Your task to perform on an android device: open app "Messenger Lite" (install if not already installed) Image 0: 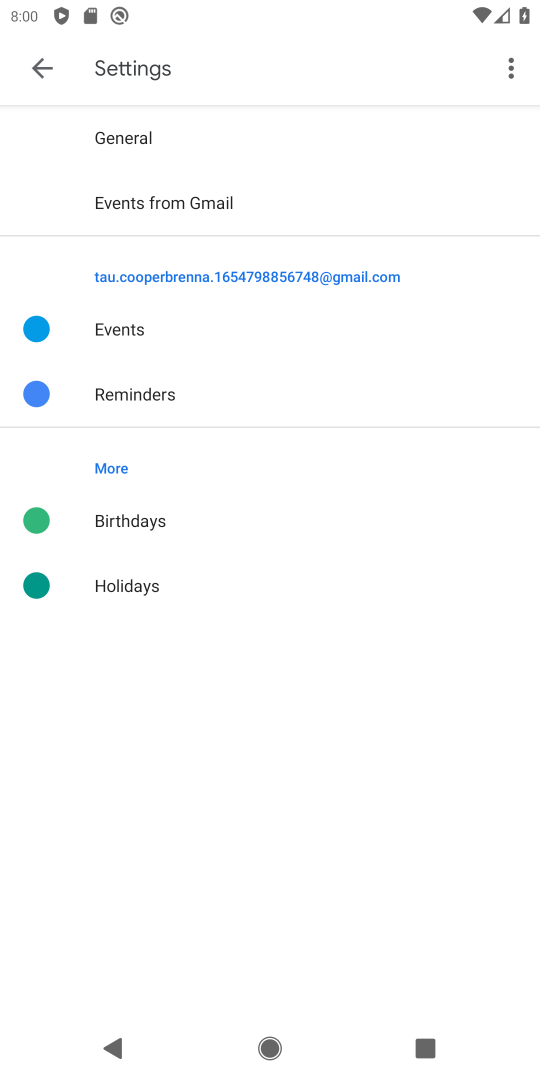
Step 0: press home button
Your task to perform on an android device: open app "Messenger Lite" (install if not already installed) Image 1: 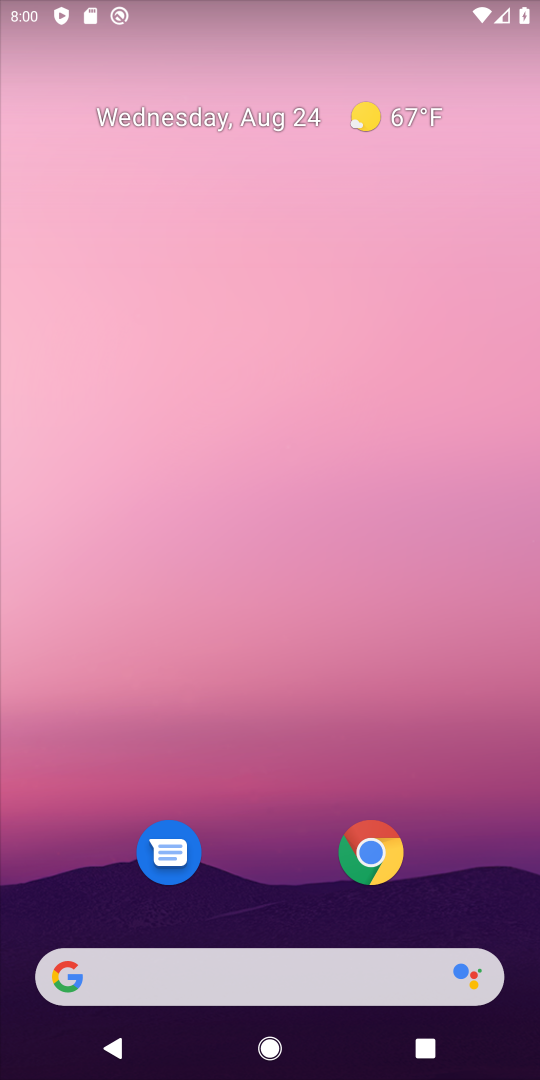
Step 1: drag from (190, 980) to (253, 42)
Your task to perform on an android device: open app "Messenger Lite" (install if not already installed) Image 2: 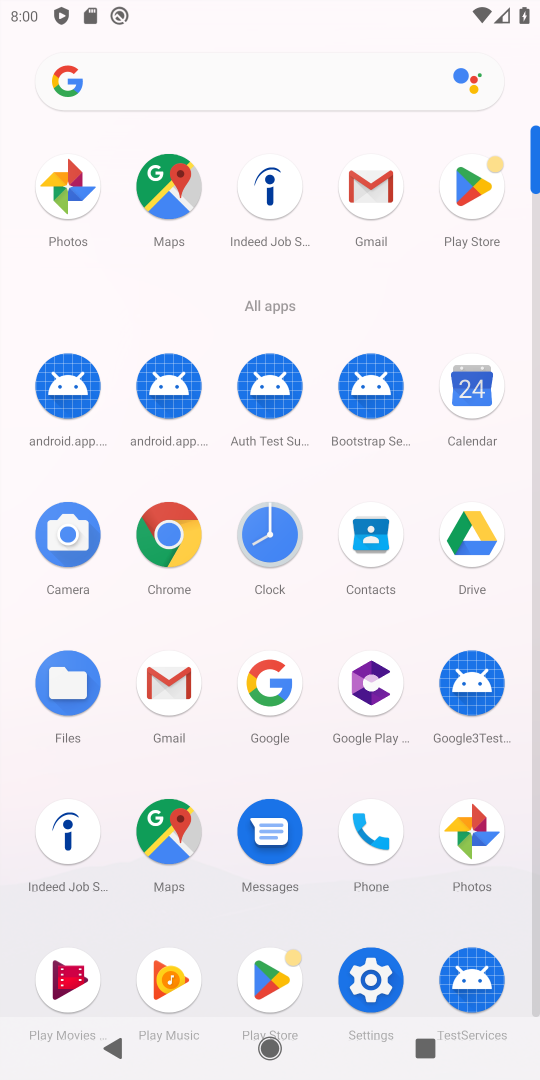
Step 2: click (470, 187)
Your task to perform on an android device: open app "Messenger Lite" (install if not already installed) Image 3: 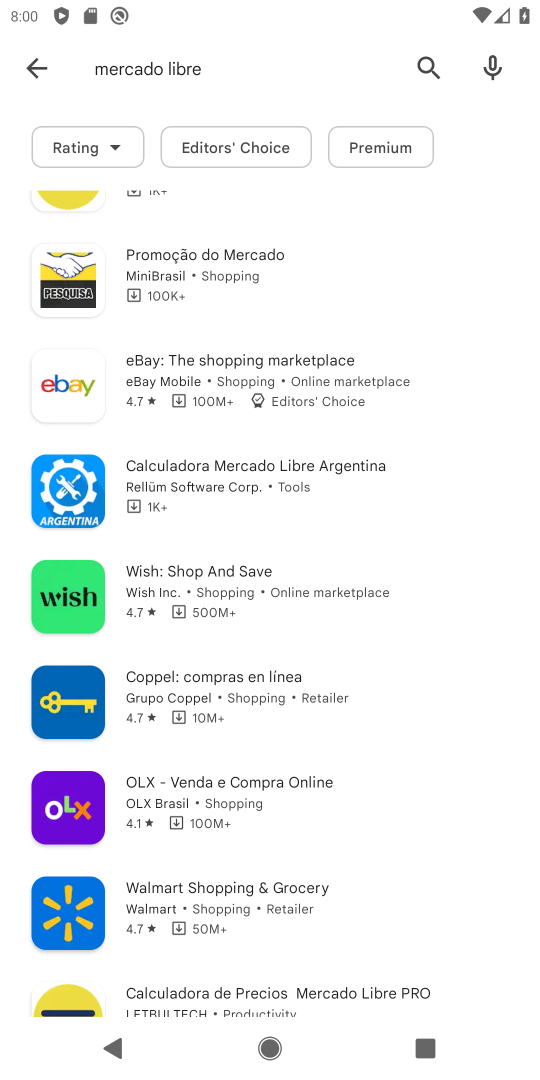
Step 3: press back button
Your task to perform on an android device: open app "Messenger Lite" (install if not already installed) Image 4: 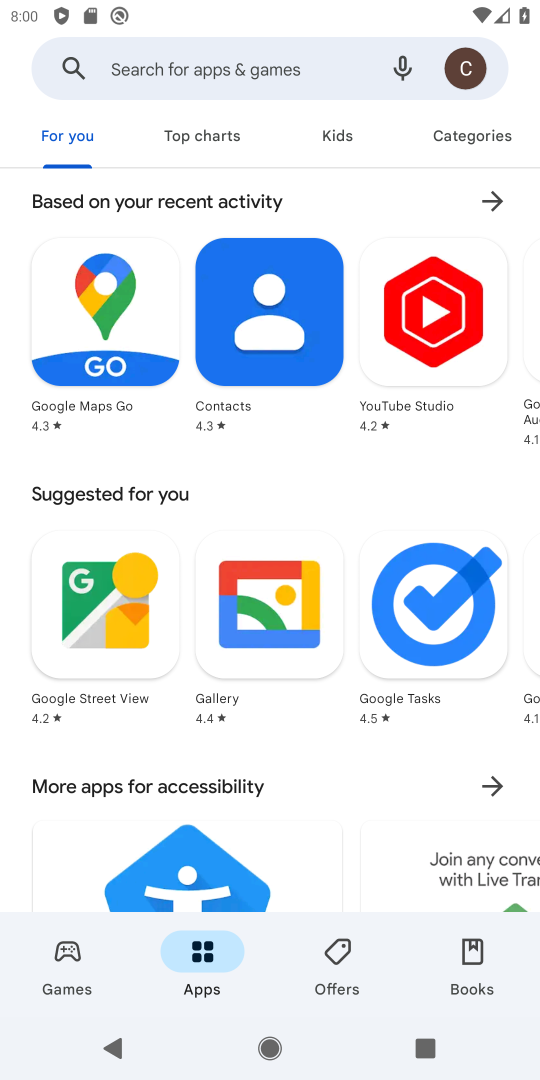
Step 4: click (271, 73)
Your task to perform on an android device: open app "Messenger Lite" (install if not already installed) Image 5: 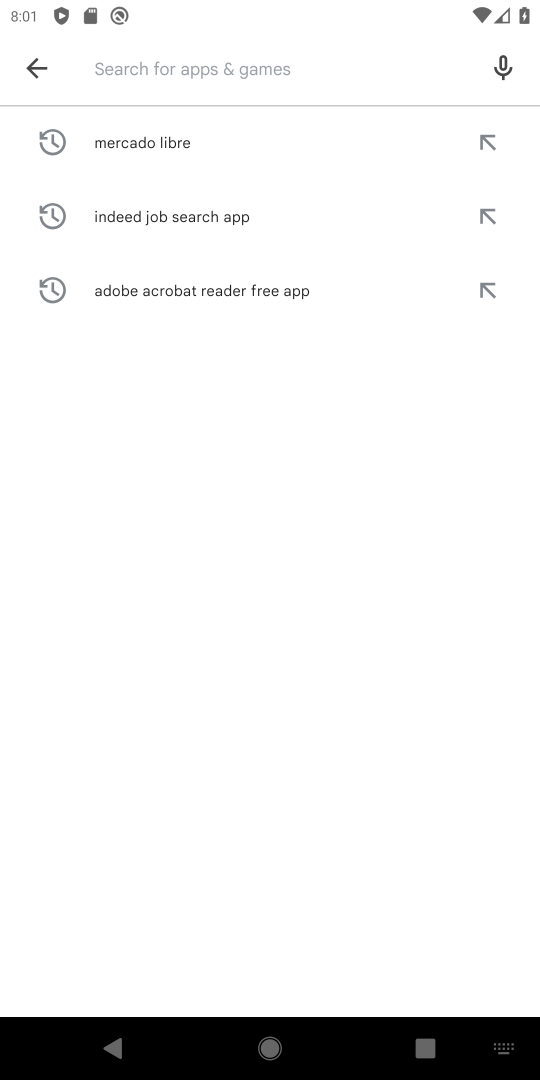
Step 5: type "Messenger Lite"
Your task to perform on an android device: open app "Messenger Lite" (install if not already installed) Image 6: 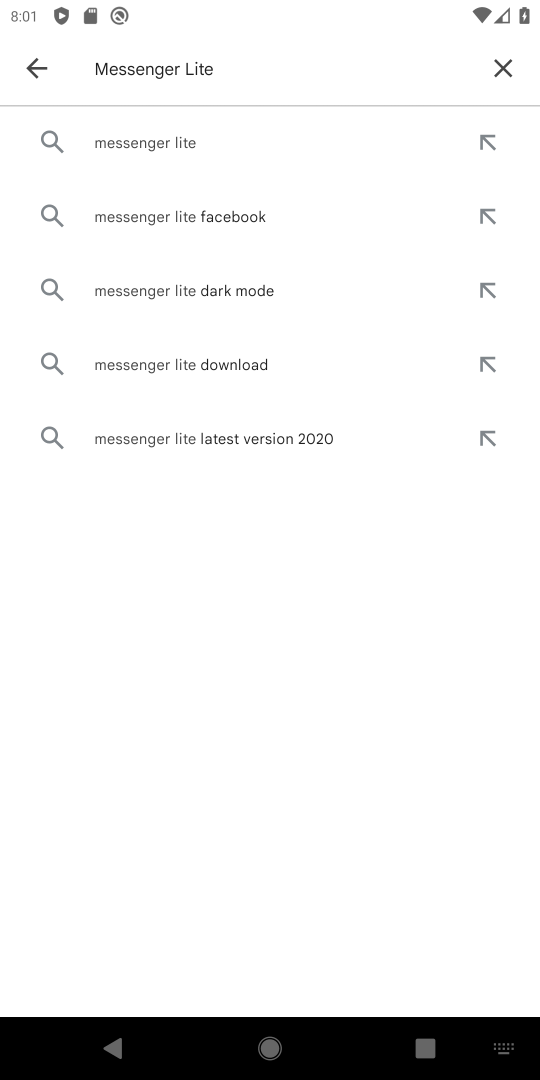
Step 6: click (178, 143)
Your task to perform on an android device: open app "Messenger Lite" (install if not already installed) Image 7: 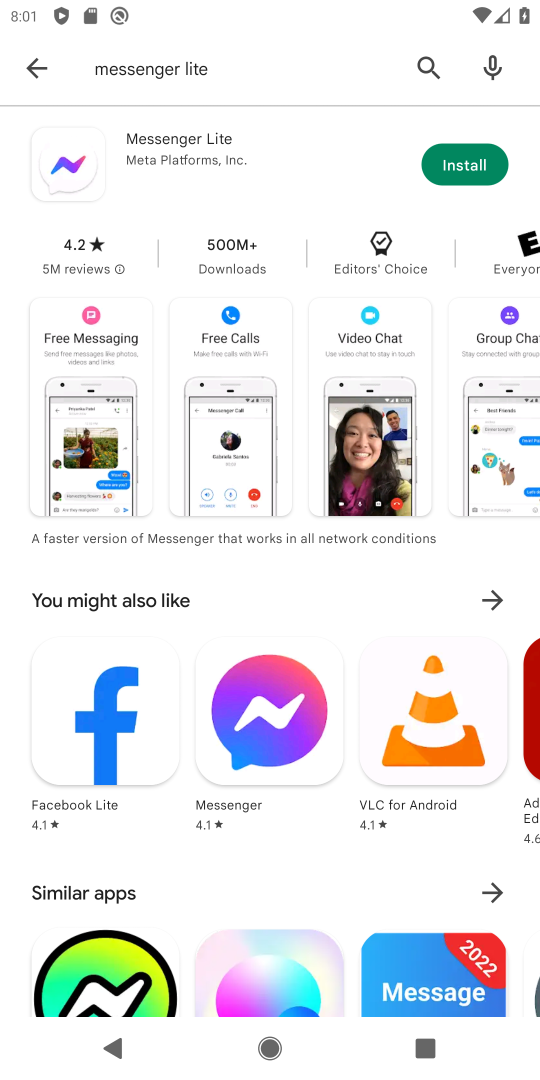
Step 7: click (459, 167)
Your task to perform on an android device: open app "Messenger Lite" (install if not already installed) Image 8: 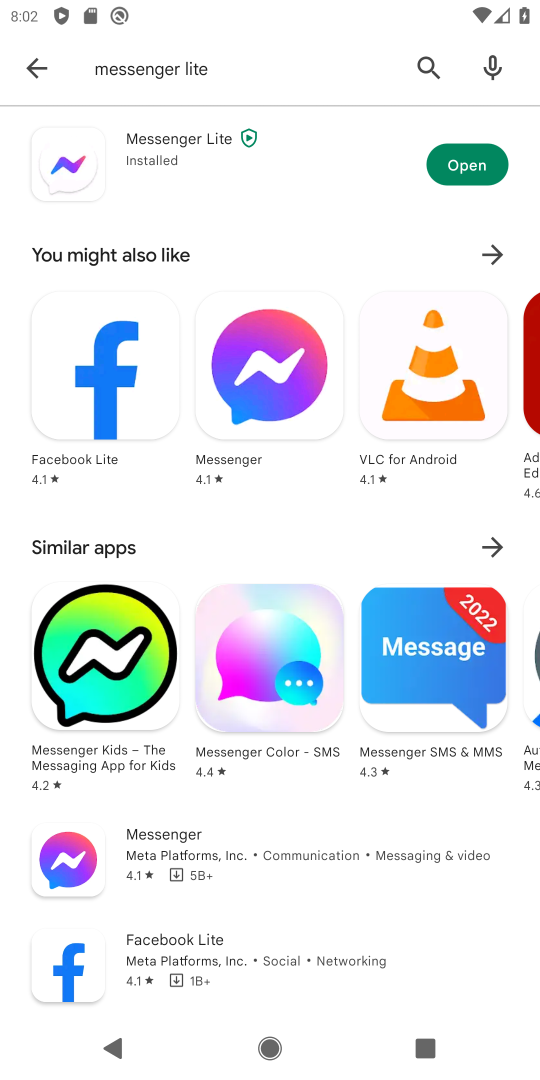
Step 8: click (474, 166)
Your task to perform on an android device: open app "Messenger Lite" (install if not already installed) Image 9: 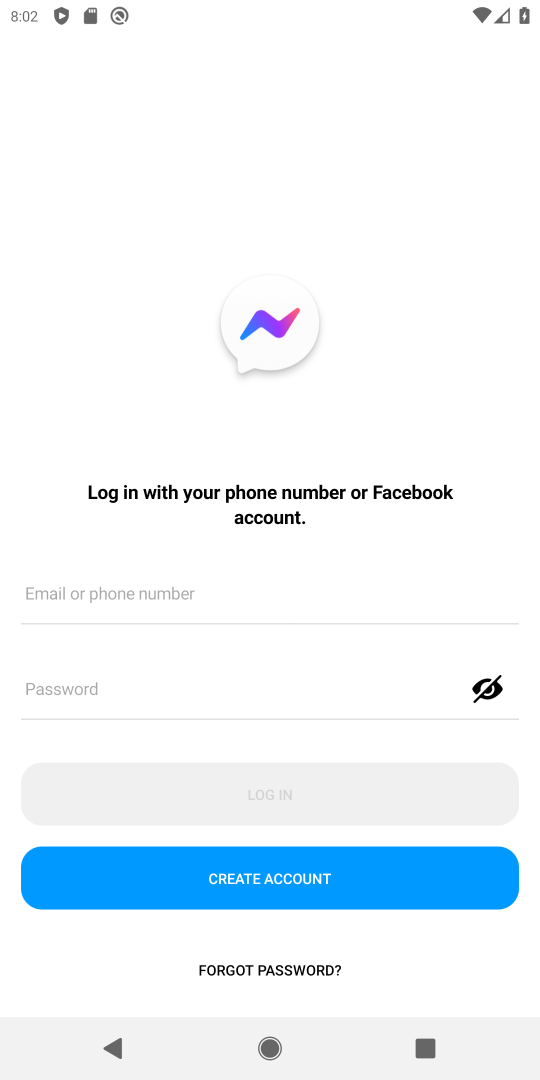
Step 9: task complete